Your task to perform on an android device: Open Maps and search for coffee Image 0: 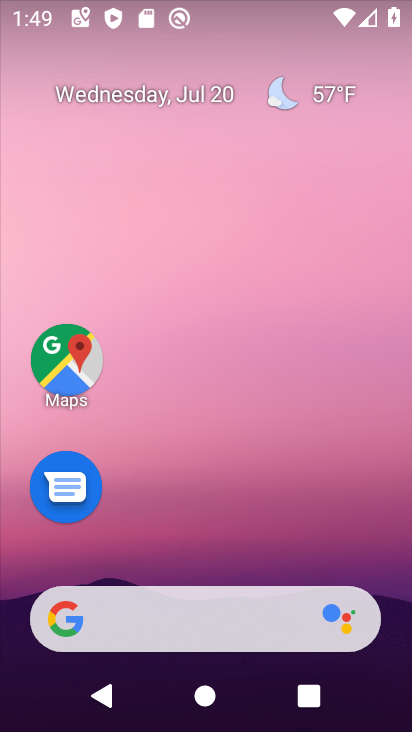
Step 0: click (55, 348)
Your task to perform on an android device: Open Maps and search for coffee Image 1: 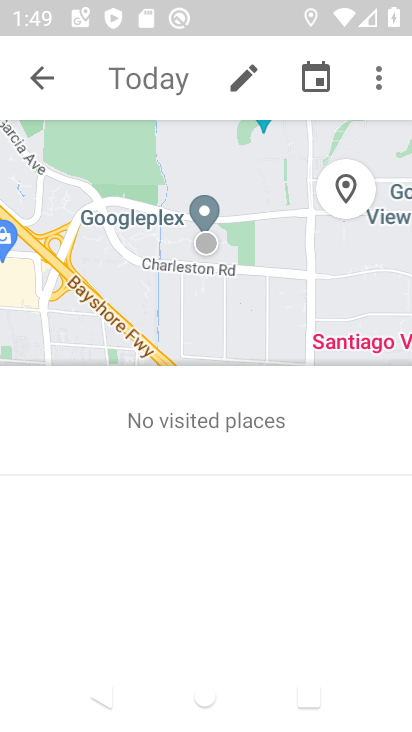
Step 1: click (43, 77)
Your task to perform on an android device: Open Maps and search for coffee Image 2: 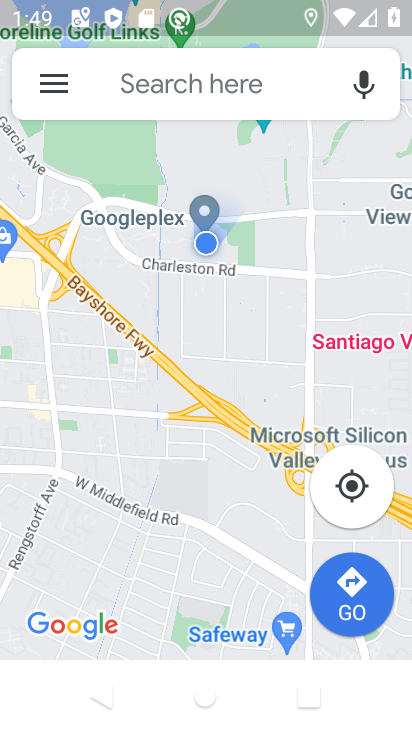
Step 2: click (159, 85)
Your task to perform on an android device: Open Maps and search for coffee Image 3: 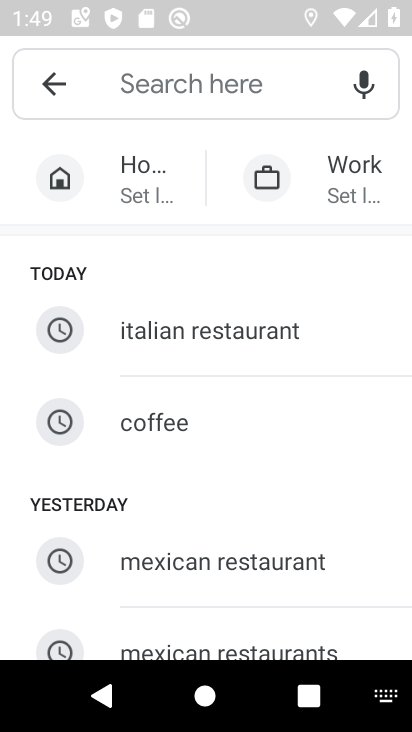
Step 3: click (154, 423)
Your task to perform on an android device: Open Maps and search for coffee Image 4: 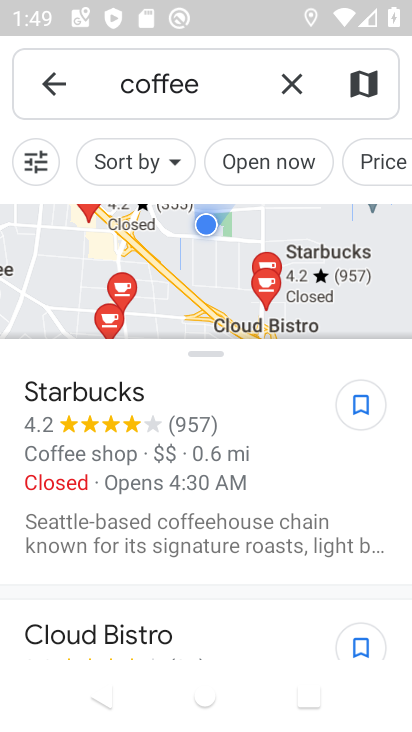
Step 4: task complete